Your task to perform on an android device: Go to privacy settings Image 0: 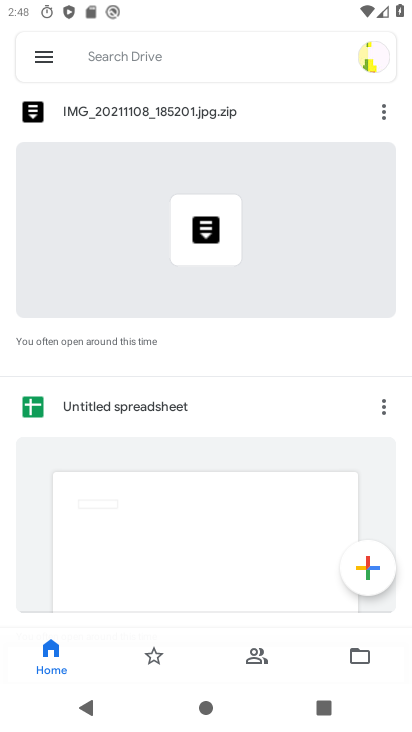
Step 0: press home button
Your task to perform on an android device: Go to privacy settings Image 1: 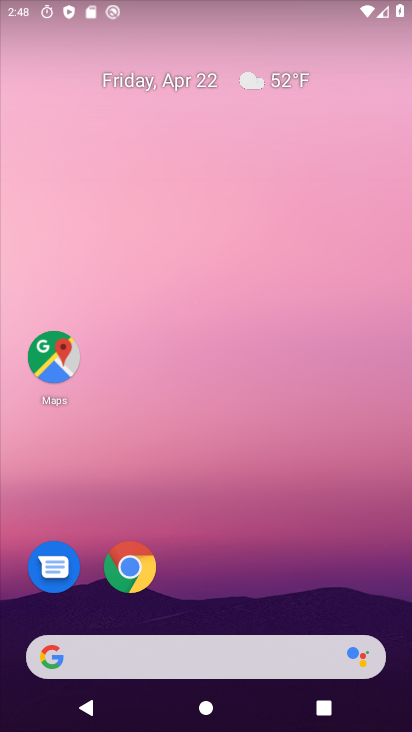
Step 1: drag from (199, 132) to (182, 30)
Your task to perform on an android device: Go to privacy settings Image 2: 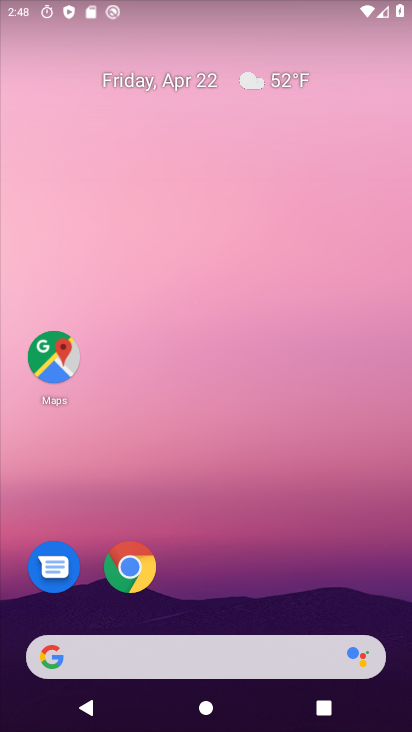
Step 2: drag from (224, 531) to (221, 9)
Your task to perform on an android device: Go to privacy settings Image 3: 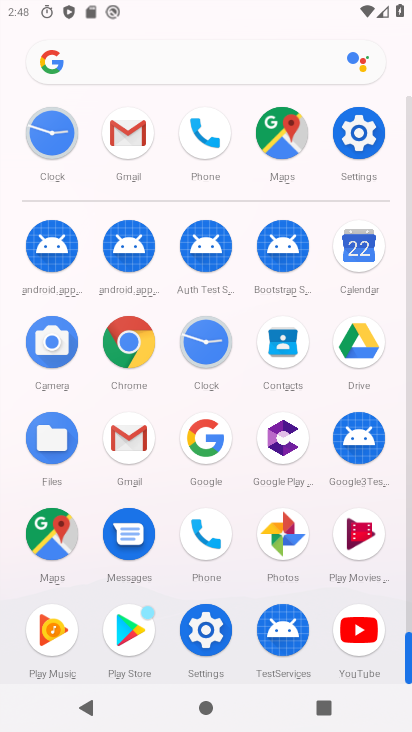
Step 3: click (361, 139)
Your task to perform on an android device: Go to privacy settings Image 4: 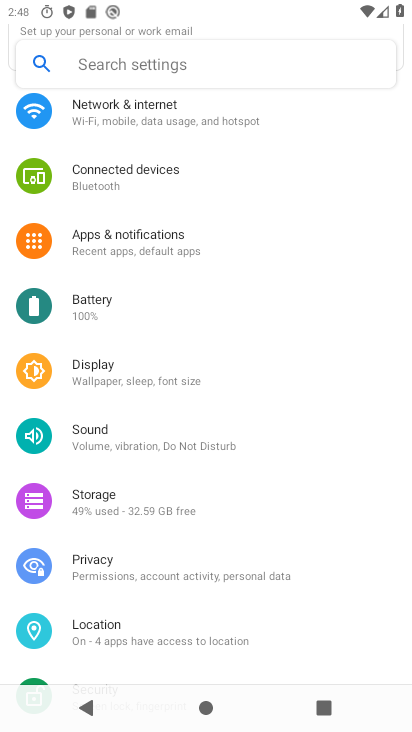
Step 4: drag from (188, 580) to (203, 352)
Your task to perform on an android device: Go to privacy settings Image 5: 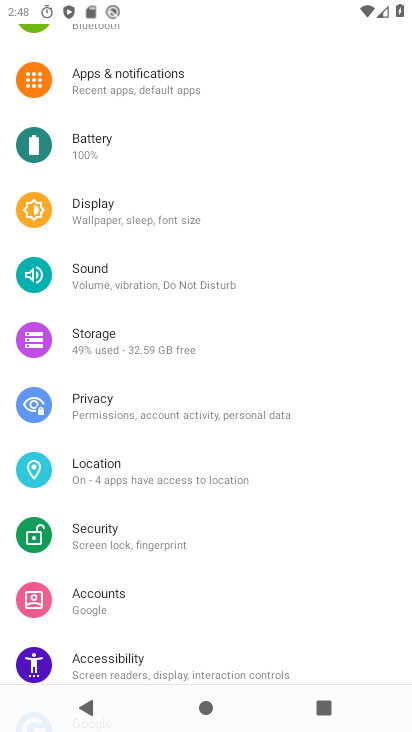
Step 5: click (175, 404)
Your task to perform on an android device: Go to privacy settings Image 6: 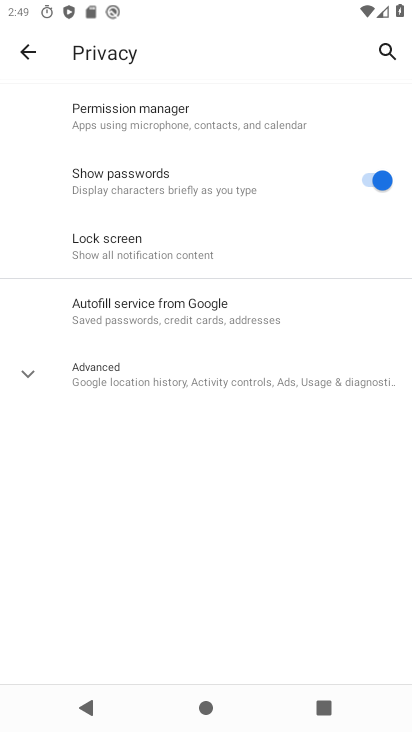
Step 6: task complete